Your task to perform on an android device: Open Wikipedia Image 0: 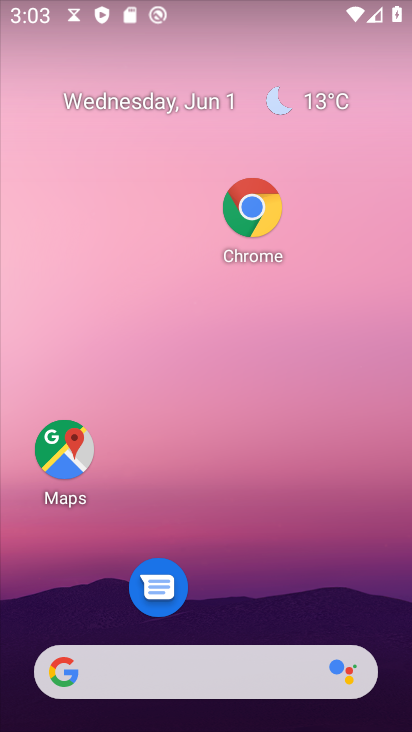
Step 0: drag from (250, 612) to (204, 279)
Your task to perform on an android device: Open Wikipedia Image 1: 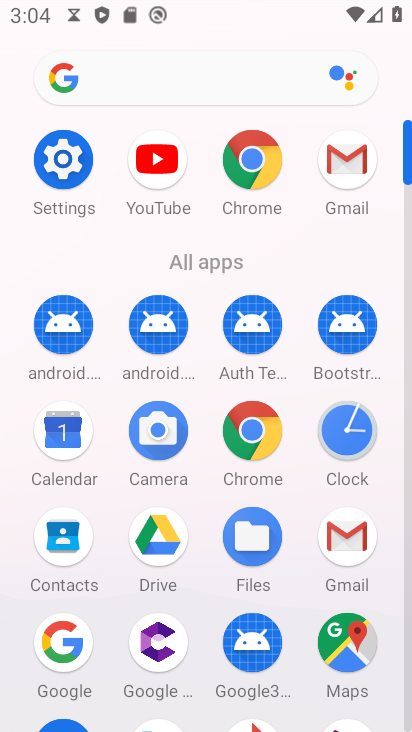
Step 1: click (247, 178)
Your task to perform on an android device: Open Wikipedia Image 2: 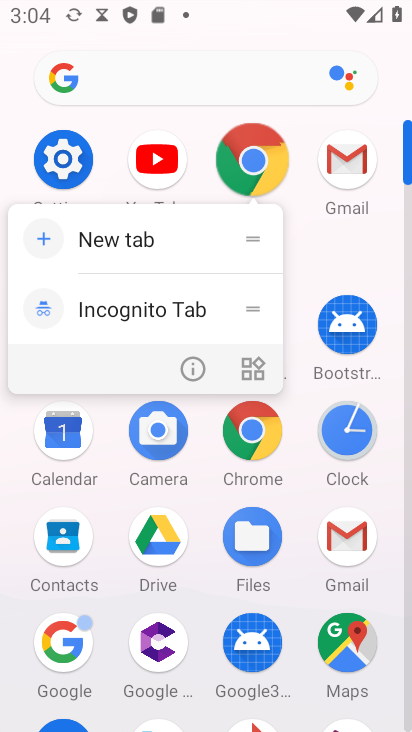
Step 2: click (246, 170)
Your task to perform on an android device: Open Wikipedia Image 3: 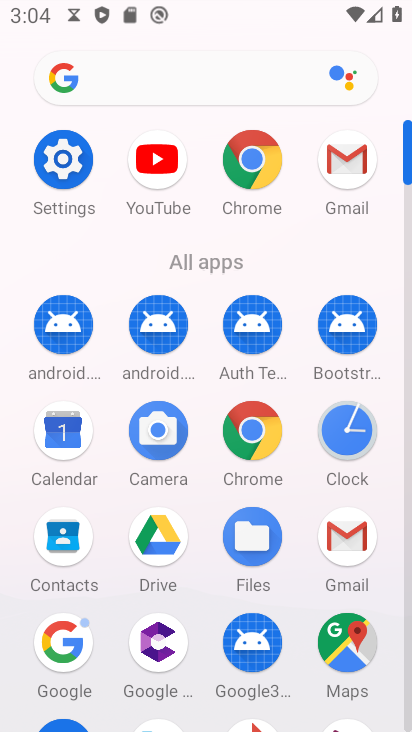
Step 3: click (246, 170)
Your task to perform on an android device: Open Wikipedia Image 4: 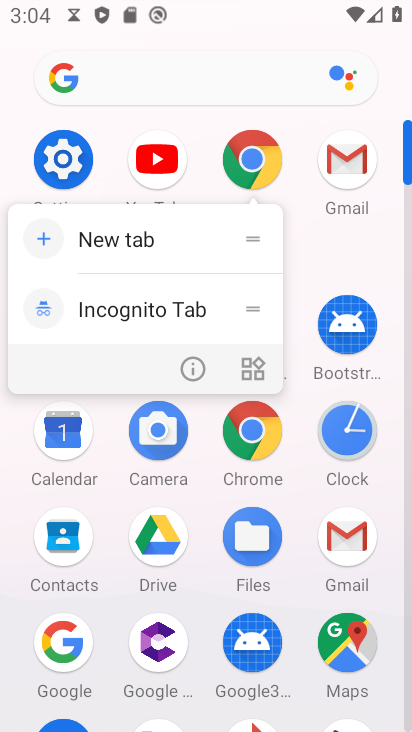
Step 4: click (249, 187)
Your task to perform on an android device: Open Wikipedia Image 5: 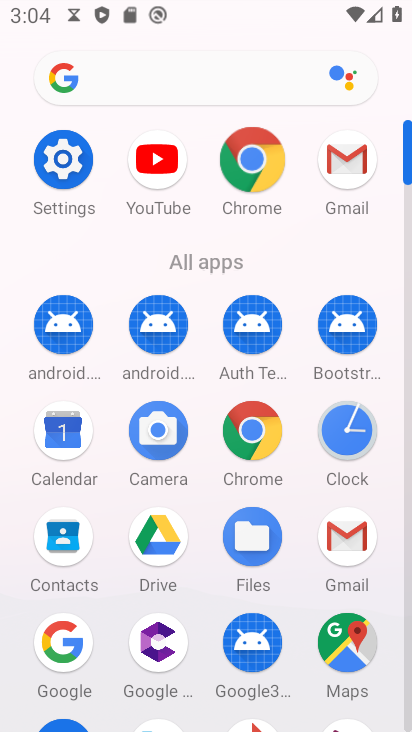
Step 5: click (241, 167)
Your task to perform on an android device: Open Wikipedia Image 6: 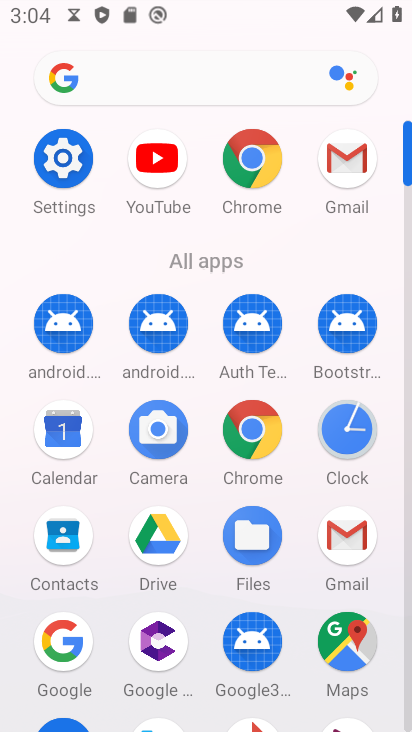
Step 6: click (244, 150)
Your task to perform on an android device: Open Wikipedia Image 7: 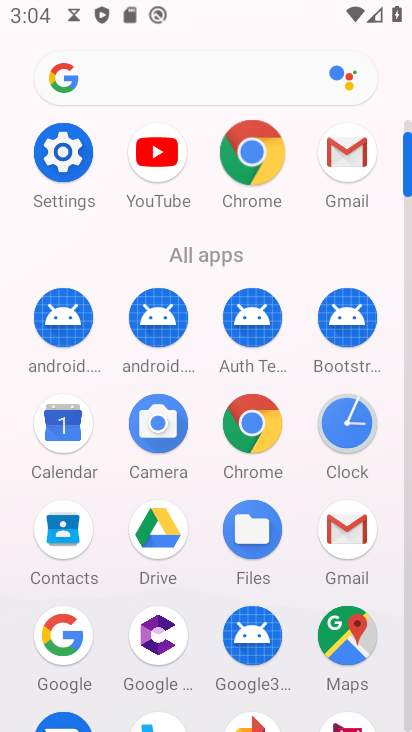
Step 7: click (245, 149)
Your task to perform on an android device: Open Wikipedia Image 8: 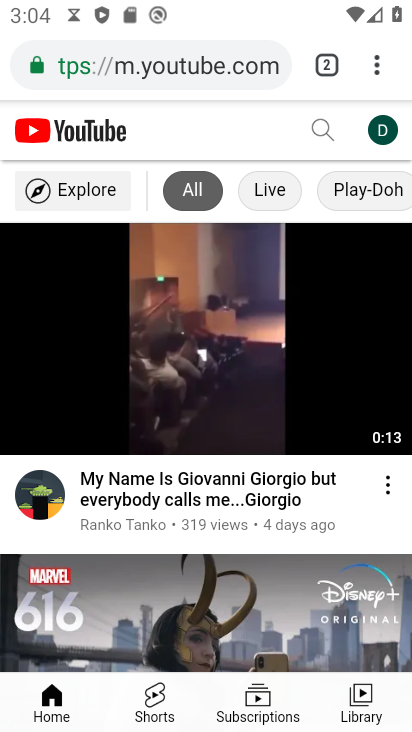
Step 8: drag from (377, 66) to (132, 629)
Your task to perform on an android device: Open Wikipedia Image 9: 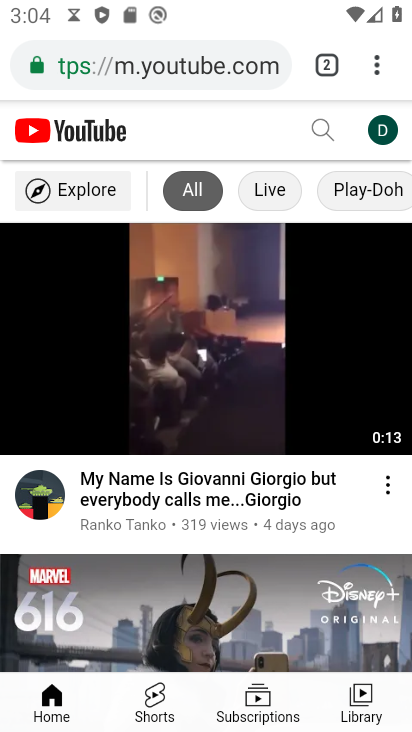
Step 9: click (132, 629)
Your task to perform on an android device: Open Wikipedia Image 10: 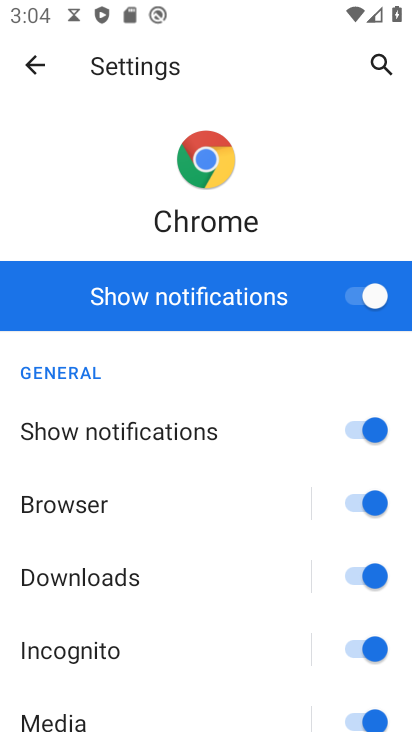
Step 10: click (28, 67)
Your task to perform on an android device: Open Wikipedia Image 11: 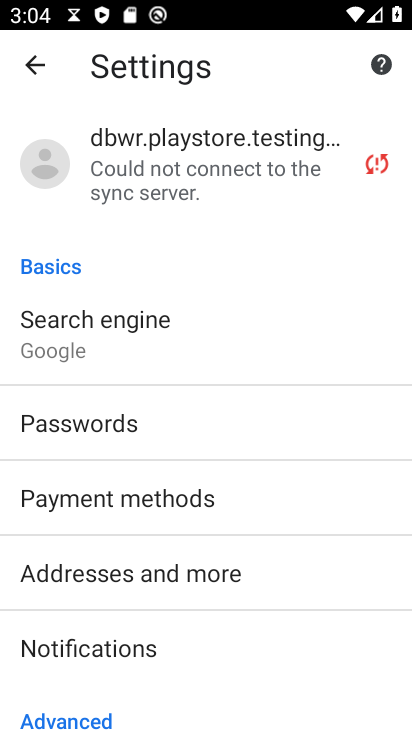
Step 11: drag from (117, 592) to (158, 204)
Your task to perform on an android device: Open Wikipedia Image 12: 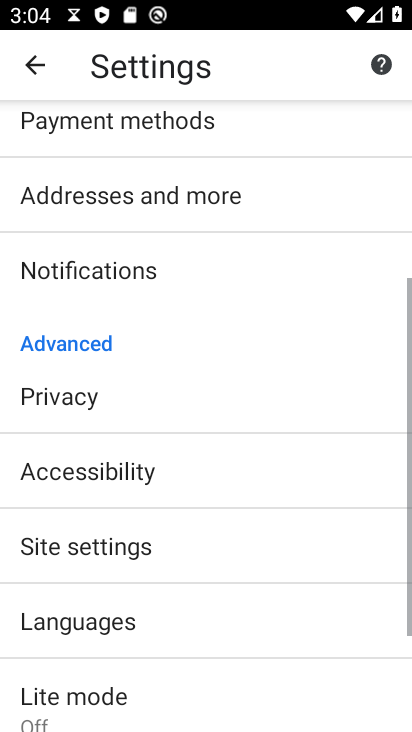
Step 12: drag from (144, 519) to (160, 314)
Your task to perform on an android device: Open Wikipedia Image 13: 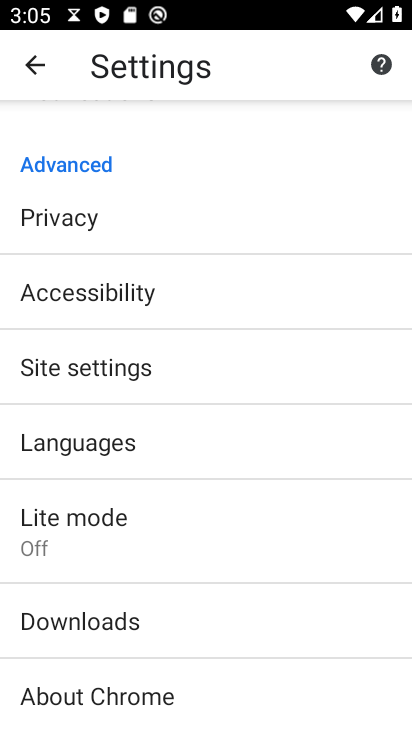
Step 13: drag from (151, 307) to (165, 653)
Your task to perform on an android device: Open Wikipedia Image 14: 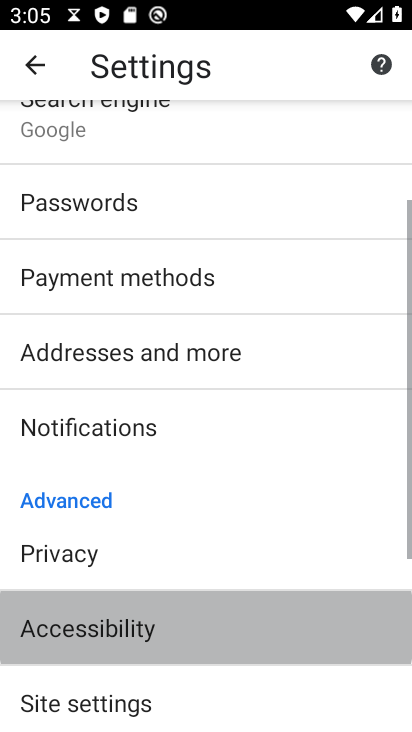
Step 14: drag from (198, 331) to (167, 686)
Your task to perform on an android device: Open Wikipedia Image 15: 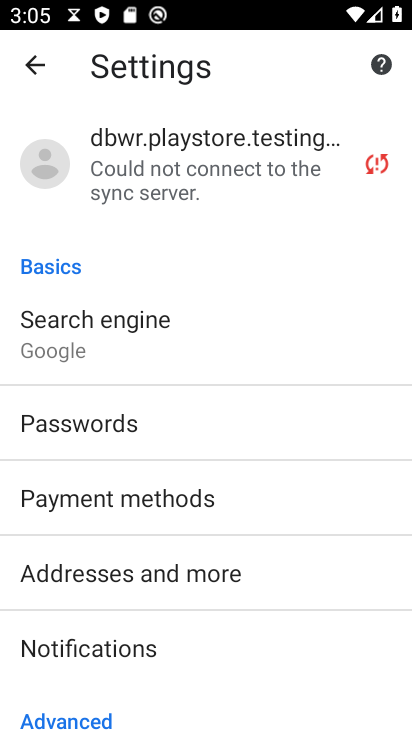
Step 15: click (26, 73)
Your task to perform on an android device: Open Wikipedia Image 16: 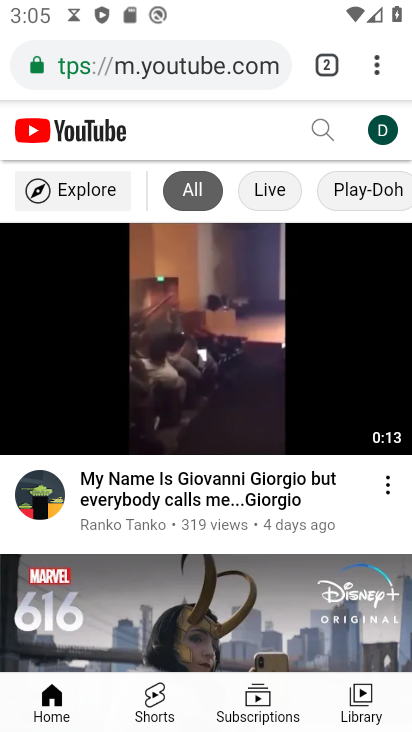
Step 16: click (379, 68)
Your task to perform on an android device: Open Wikipedia Image 17: 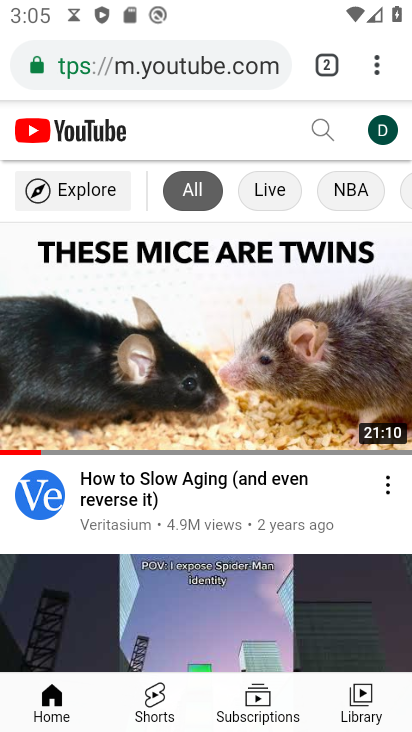
Step 17: click (383, 78)
Your task to perform on an android device: Open Wikipedia Image 18: 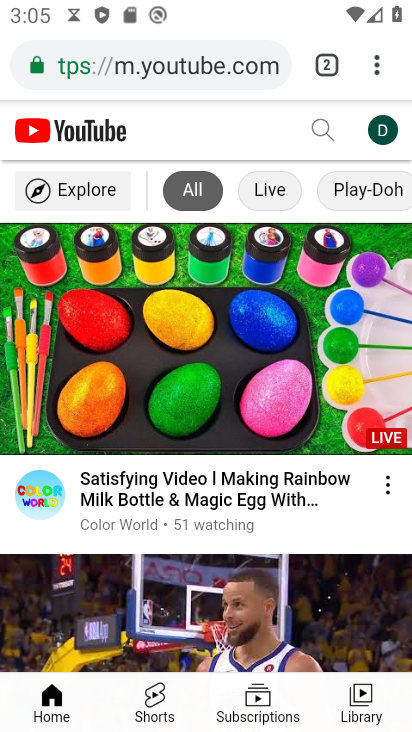
Step 18: drag from (372, 70) to (136, 123)
Your task to perform on an android device: Open Wikipedia Image 19: 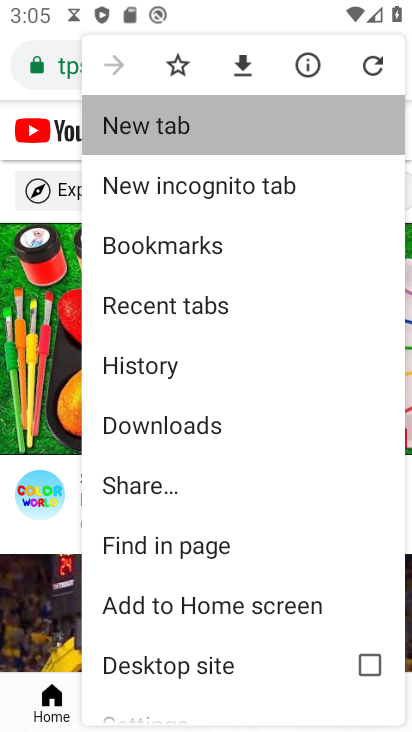
Step 19: click (136, 123)
Your task to perform on an android device: Open Wikipedia Image 20: 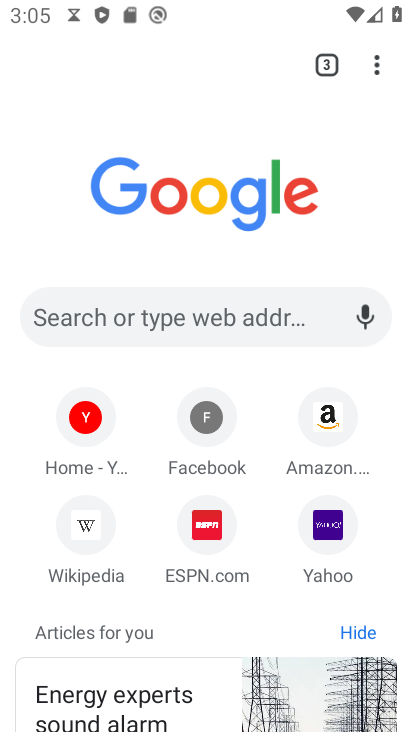
Step 20: click (60, 519)
Your task to perform on an android device: Open Wikipedia Image 21: 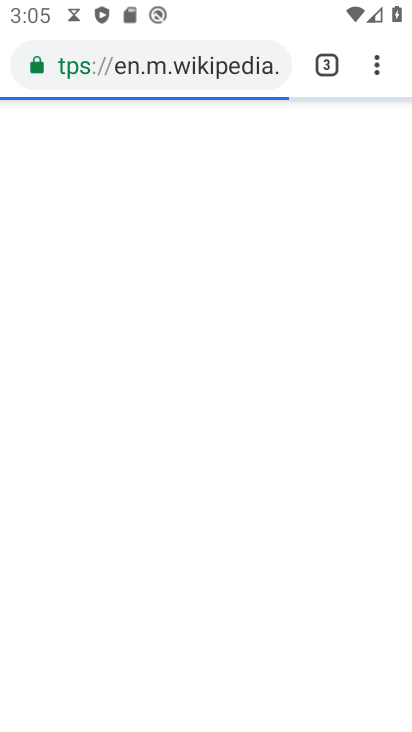
Step 21: click (72, 488)
Your task to perform on an android device: Open Wikipedia Image 22: 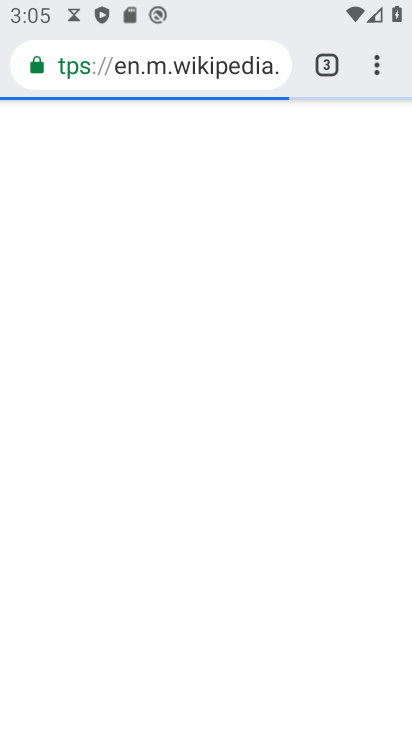
Step 22: click (84, 533)
Your task to perform on an android device: Open Wikipedia Image 23: 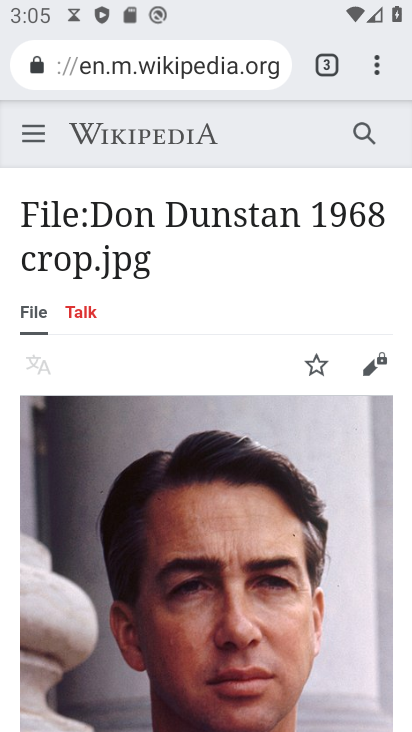
Step 23: task complete